Your task to perform on an android device: What is the news today? Image 0: 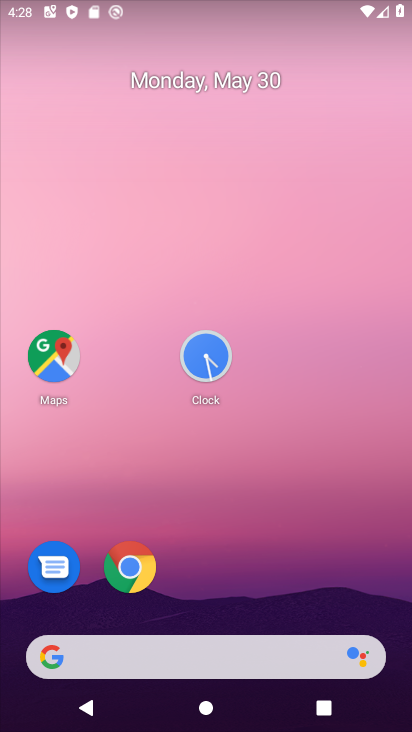
Step 0: drag from (306, 680) to (244, 55)
Your task to perform on an android device: What is the news today? Image 1: 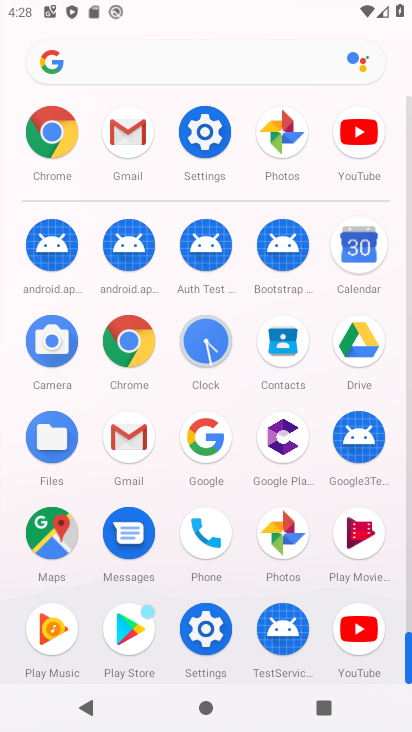
Step 1: press back button
Your task to perform on an android device: What is the news today? Image 2: 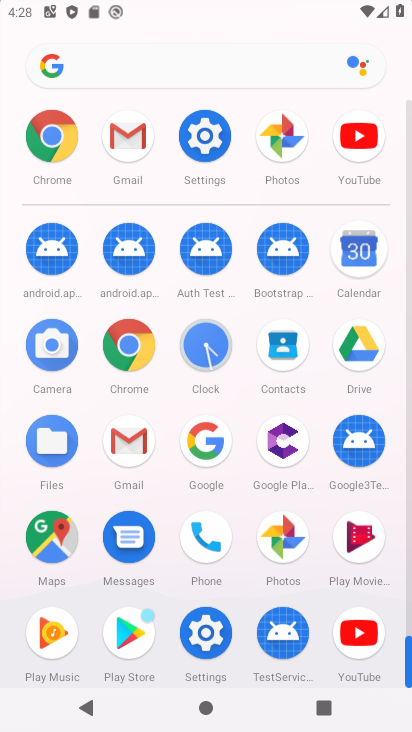
Step 2: press back button
Your task to perform on an android device: What is the news today? Image 3: 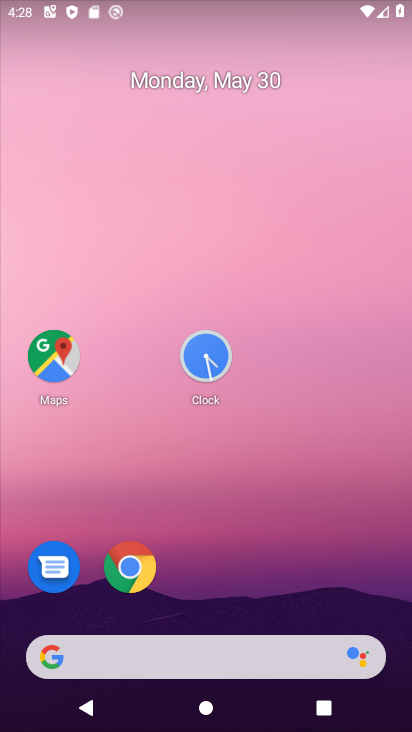
Step 3: press back button
Your task to perform on an android device: What is the news today? Image 4: 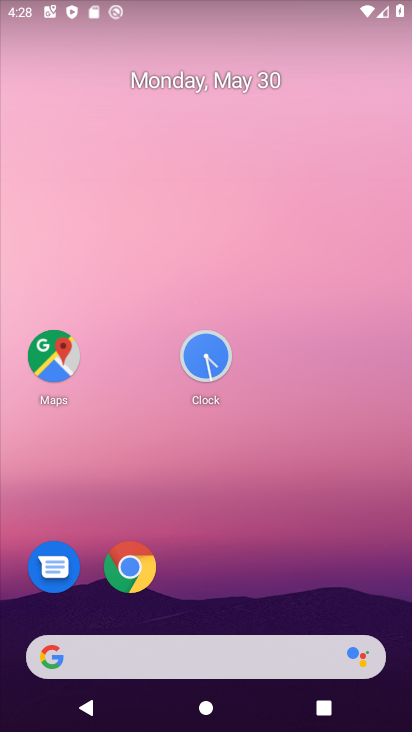
Step 4: drag from (17, 224) to (411, 374)
Your task to perform on an android device: What is the news today? Image 5: 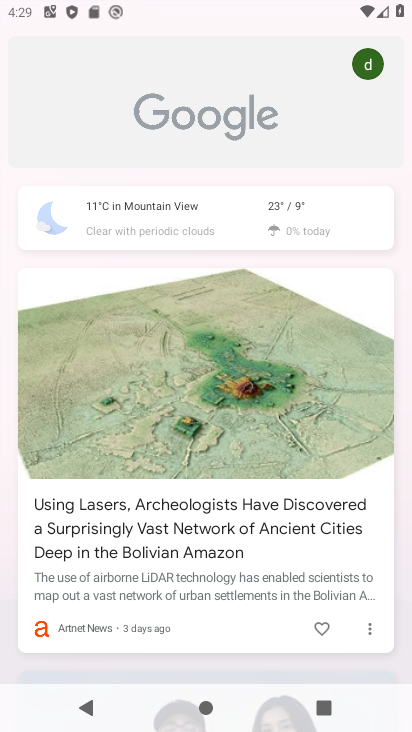
Step 5: drag from (175, 464) to (155, 205)
Your task to perform on an android device: What is the news today? Image 6: 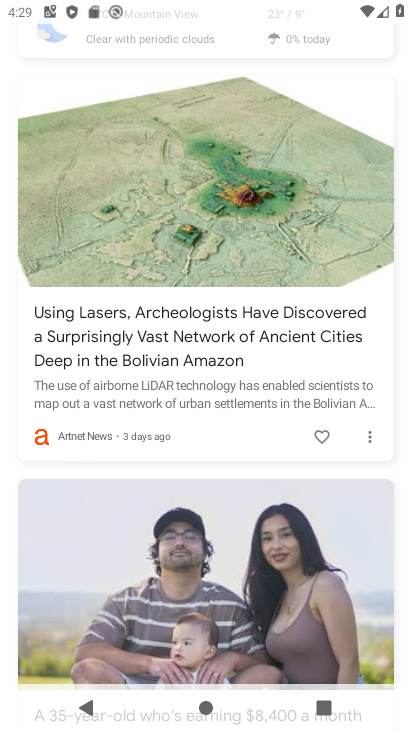
Step 6: drag from (154, 477) to (167, 289)
Your task to perform on an android device: What is the news today? Image 7: 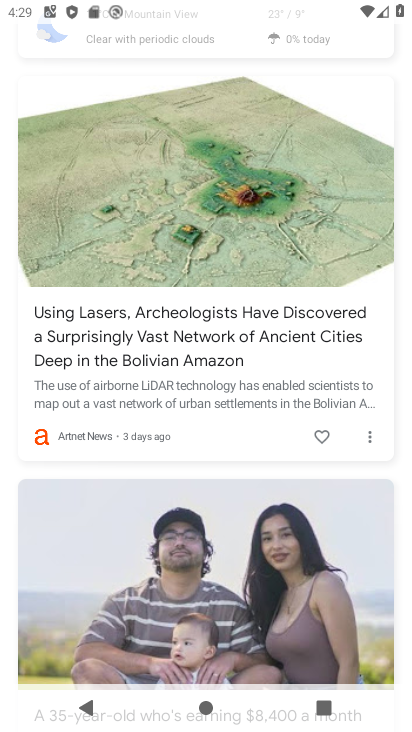
Step 7: drag from (153, 518) to (172, 200)
Your task to perform on an android device: What is the news today? Image 8: 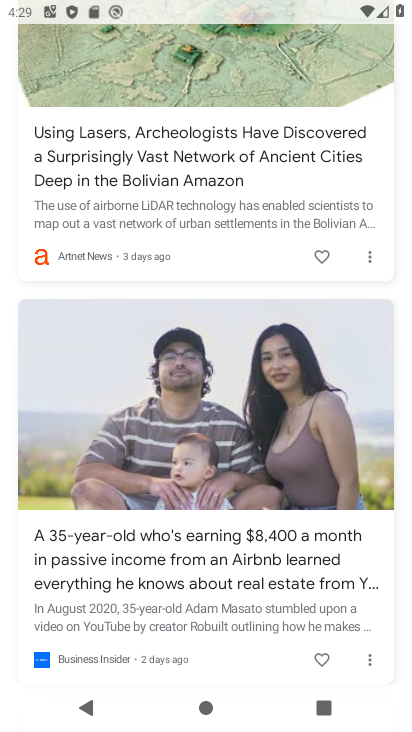
Step 8: drag from (207, 445) to (204, 236)
Your task to perform on an android device: What is the news today? Image 9: 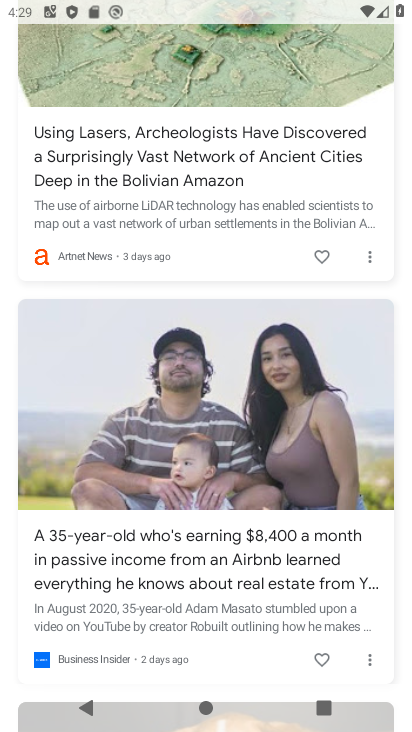
Step 9: drag from (179, 480) to (213, 148)
Your task to perform on an android device: What is the news today? Image 10: 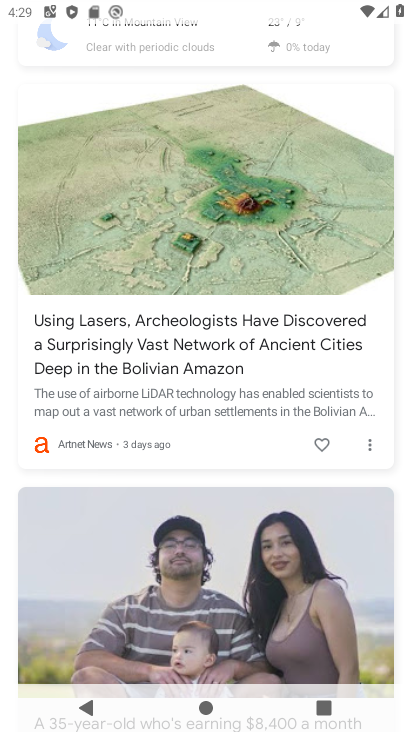
Step 10: drag from (219, 504) to (219, 153)
Your task to perform on an android device: What is the news today? Image 11: 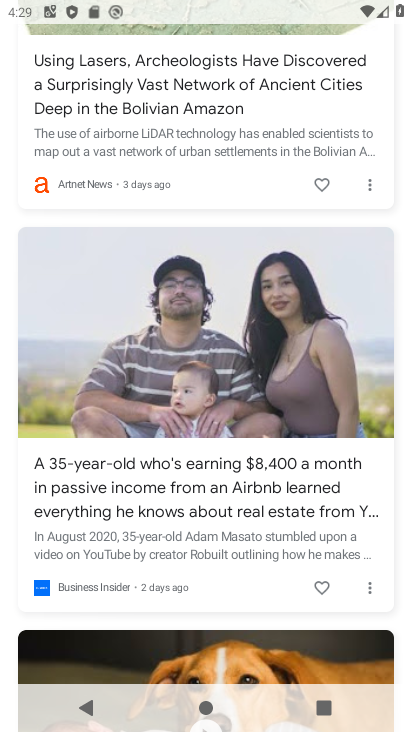
Step 11: drag from (232, 470) to (239, 181)
Your task to perform on an android device: What is the news today? Image 12: 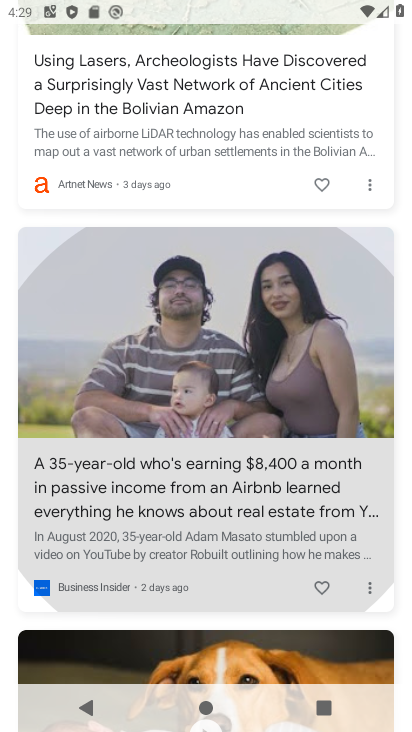
Step 12: drag from (203, 462) to (194, 228)
Your task to perform on an android device: What is the news today? Image 13: 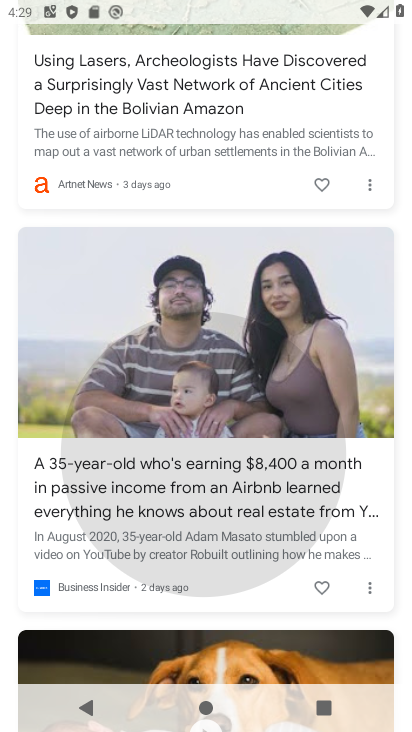
Step 13: drag from (134, 110) to (134, 36)
Your task to perform on an android device: What is the news today? Image 14: 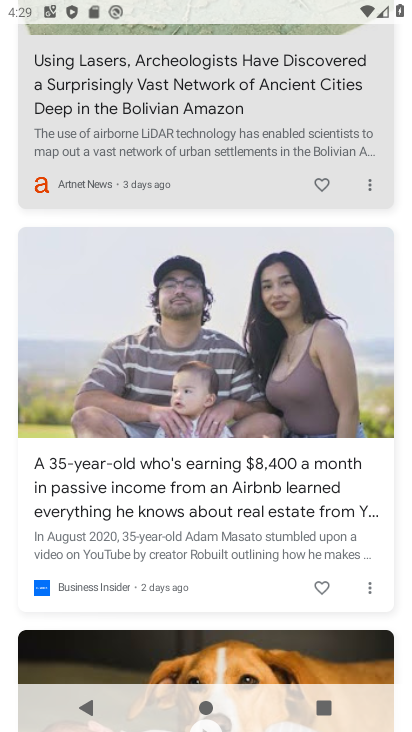
Step 14: drag from (146, 268) to (129, 220)
Your task to perform on an android device: What is the news today? Image 15: 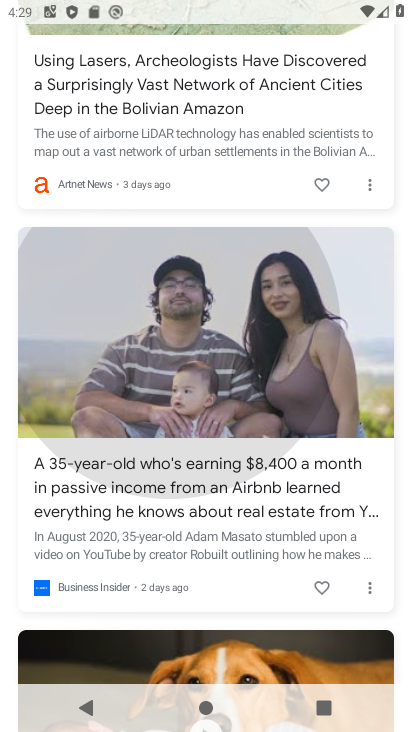
Step 15: drag from (149, 527) to (165, 93)
Your task to perform on an android device: What is the news today? Image 16: 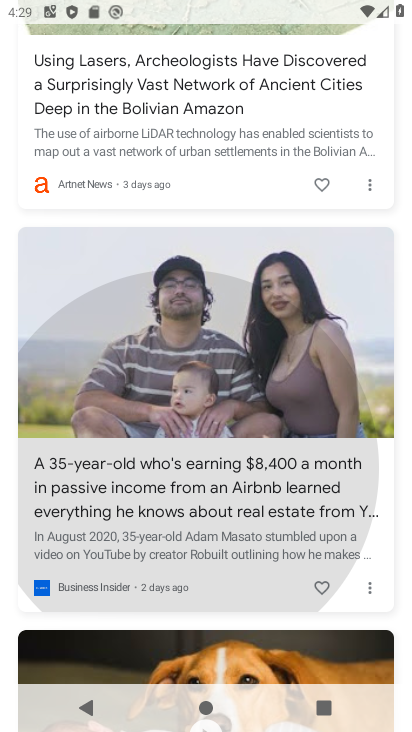
Step 16: drag from (166, 400) to (157, 138)
Your task to perform on an android device: What is the news today? Image 17: 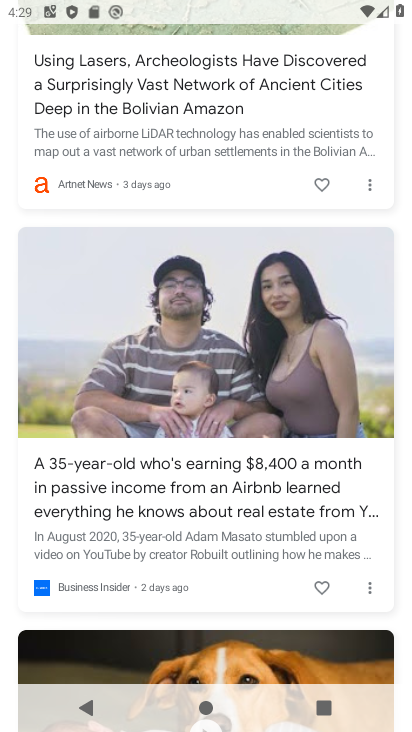
Step 17: click (210, 146)
Your task to perform on an android device: What is the news today? Image 18: 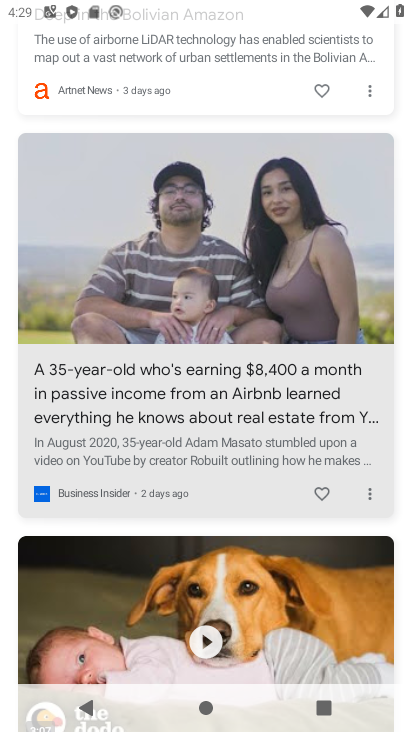
Step 18: task complete